Your task to perform on an android device: Open notification settings Image 0: 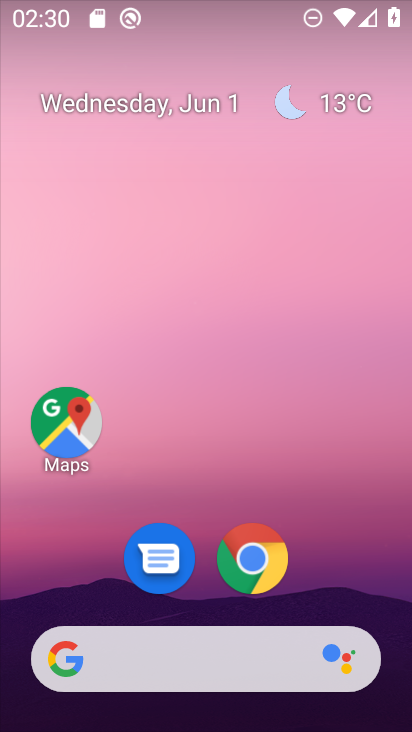
Step 0: drag from (388, 643) to (359, 236)
Your task to perform on an android device: Open notification settings Image 1: 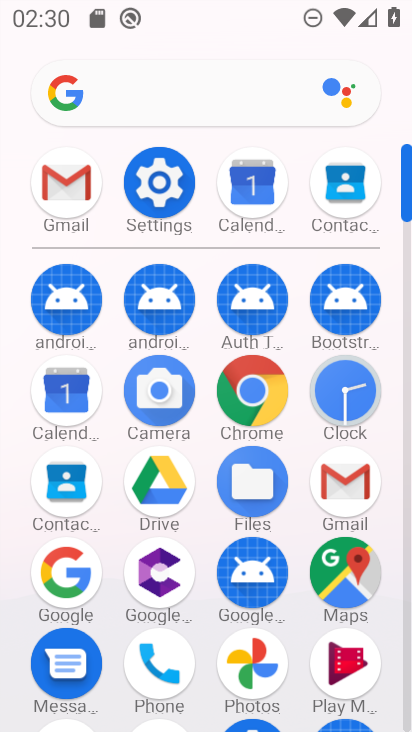
Step 1: click (162, 195)
Your task to perform on an android device: Open notification settings Image 2: 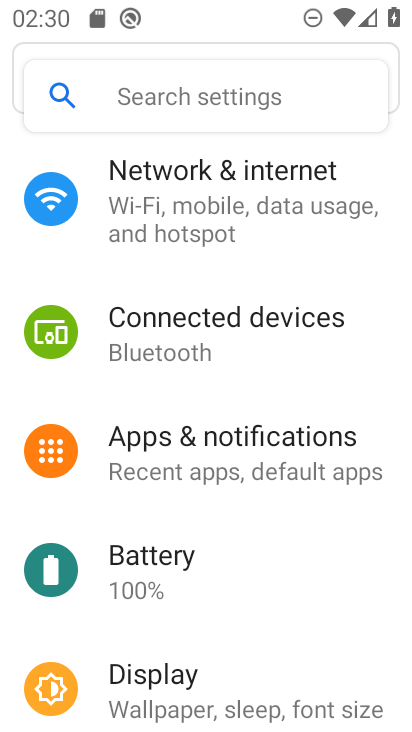
Step 2: click (195, 433)
Your task to perform on an android device: Open notification settings Image 3: 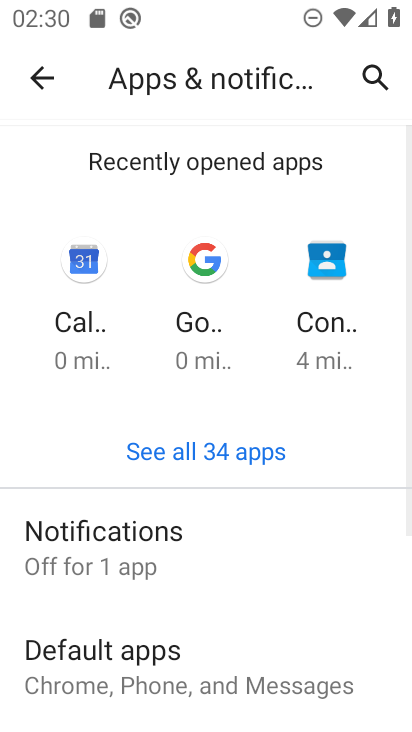
Step 3: click (58, 560)
Your task to perform on an android device: Open notification settings Image 4: 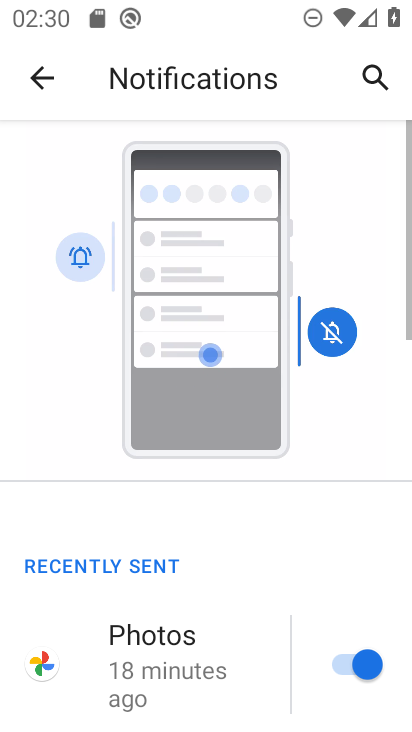
Step 4: drag from (248, 597) to (260, 161)
Your task to perform on an android device: Open notification settings Image 5: 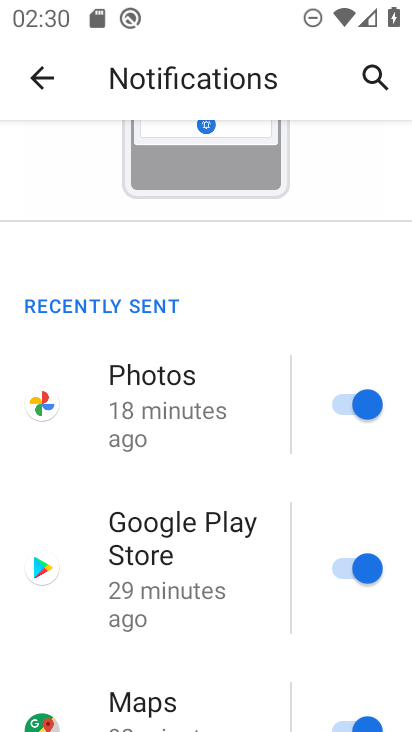
Step 5: drag from (261, 675) to (278, 170)
Your task to perform on an android device: Open notification settings Image 6: 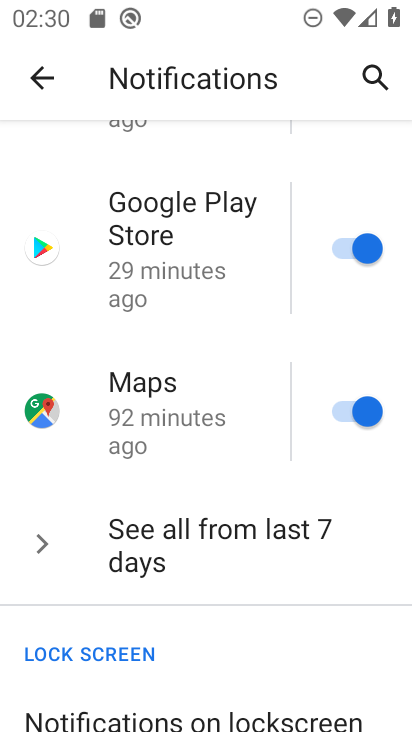
Step 6: drag from (249, 595) to (255, 256)
Your task to perform on an android device: Open notification settings Image 7: 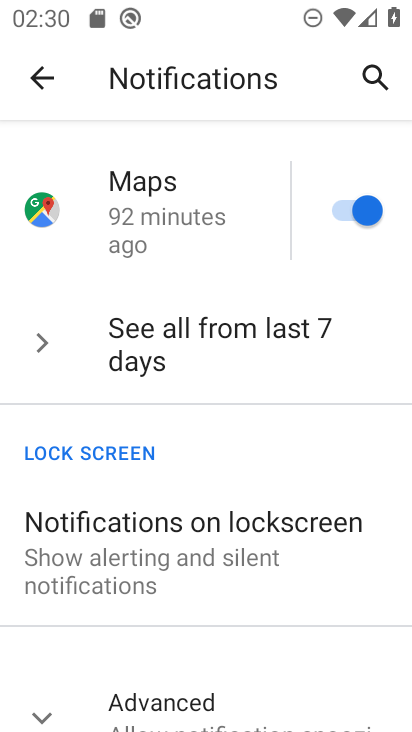
Step 7: drag from (179, 642) to (194, 305)
Your task to perform on an android device: Open notification settings Image 8: 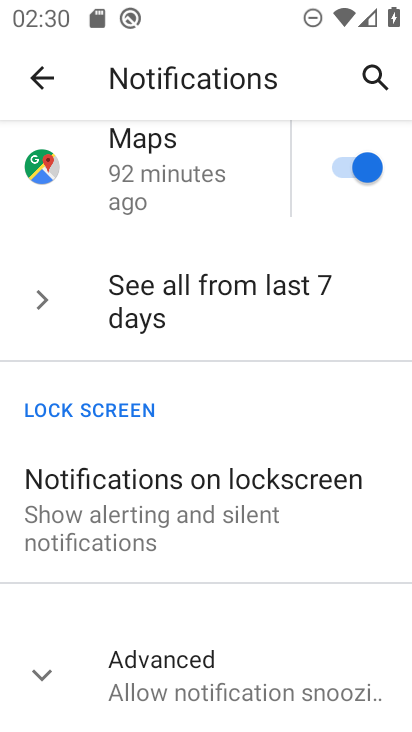
Step 8: click (45, 677)
Your task to perform on an android device: Open notification settings Image 9: 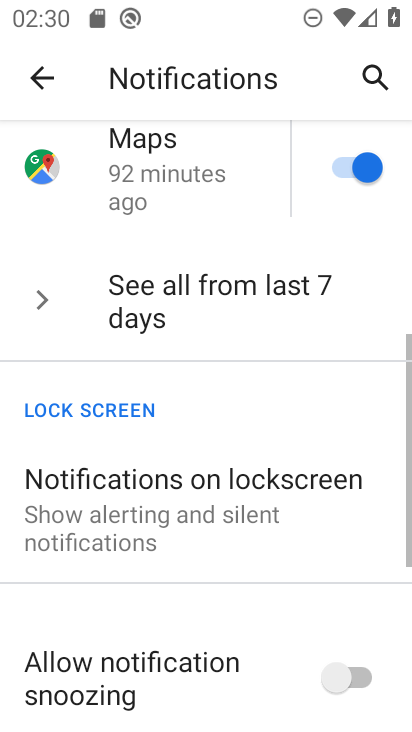
Step 9: task complete